Your task to perform on an android device: turn off sleep mode Image 0: 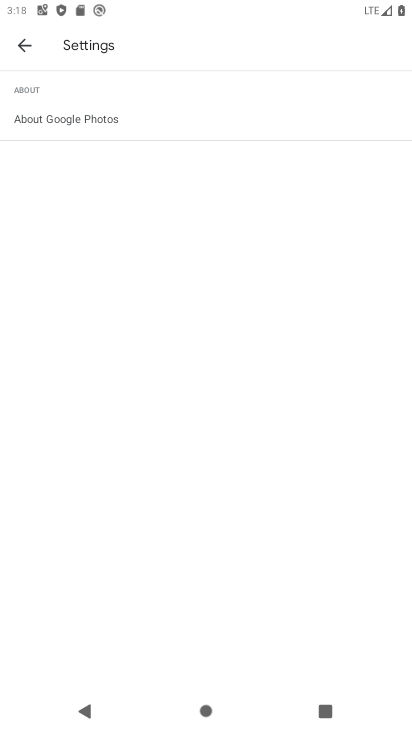
Step 0: press home button
Your task to perform on an android device: turn off sleep mode Image 1: 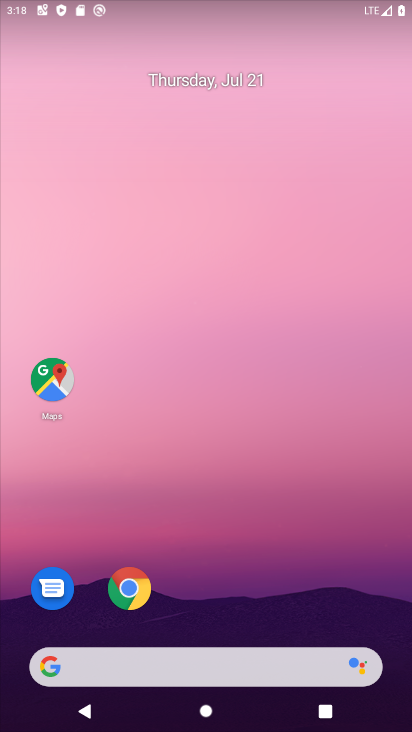
Step 1: drag from (231, 488) to (15, 7)
Your task to perform on an android device: turn off sleep mode Image 2: 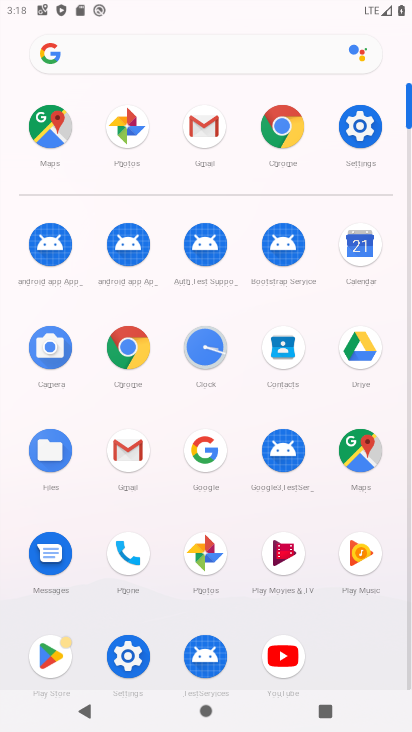
Step 2: click (351, 147)
Your task to perform on an android device: turn off sleep mode Image 3: 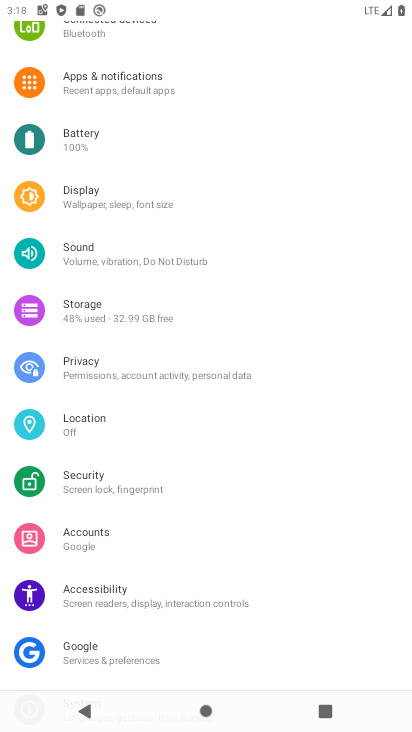
Step 3: click (156, 189)
Your task to perform on an android device: turn off sleep mode Image 4: 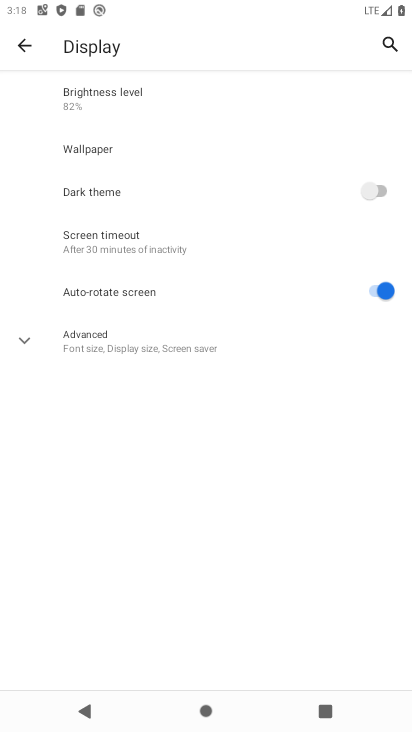
Step 4: click (108, 343)
Your task to perform on an android device: turn off sleep mode Image 5: 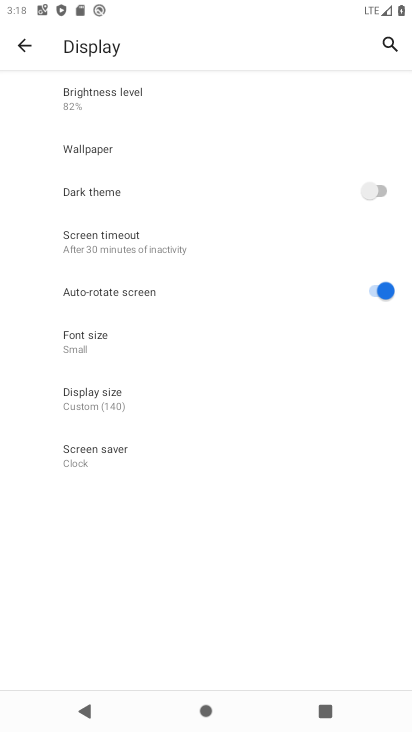
Step 5: task complete